Your task to perform on an android device: turn on airplane mode Image 0: 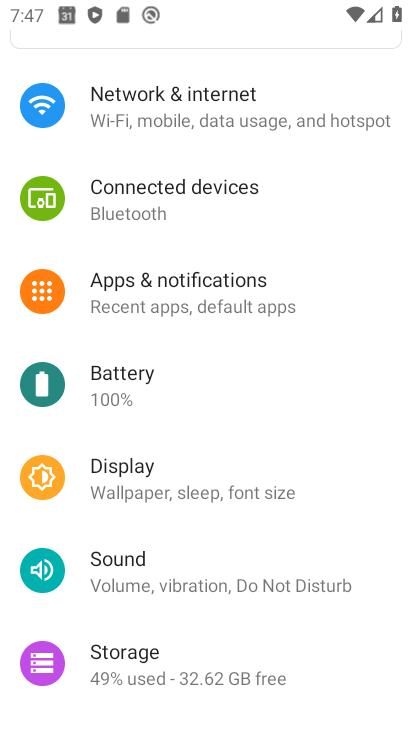
Step 0: click (196, 116)
Your task to perform on an android device: turn on airplane mode Image 1: 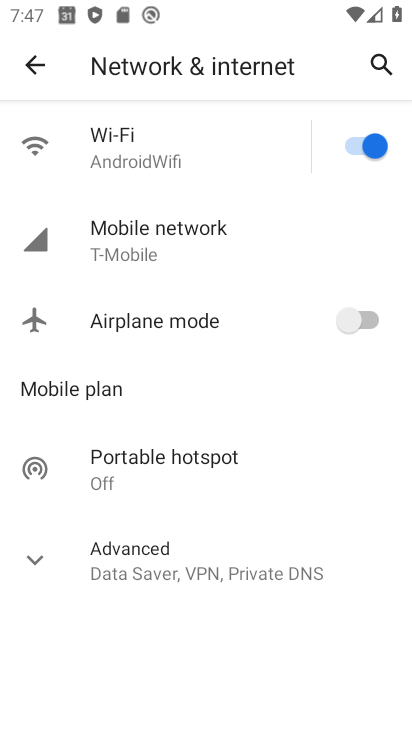
Step 1: click (361, 311)
Your task to perform on an android device: turn on airplane mode Image 2: 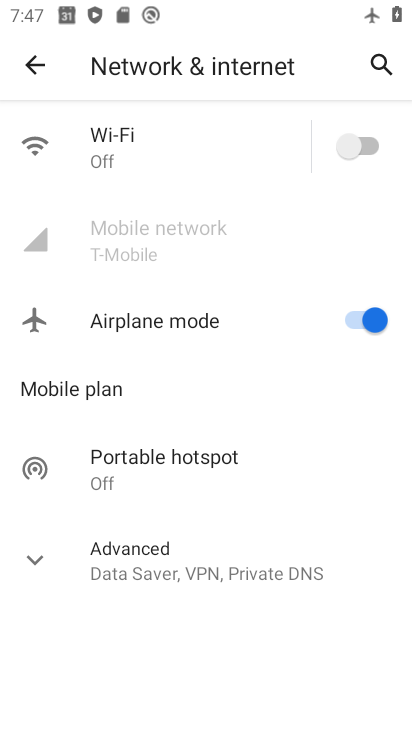
Step 2: task complete